Your task to perform on an android device: check android version Image 0: 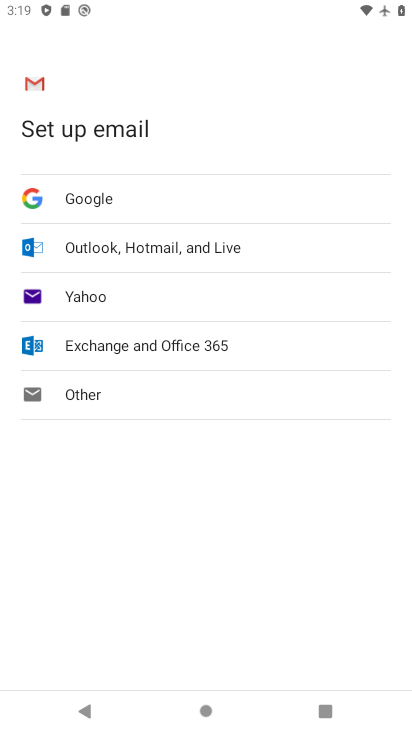
Step 0: press home button
Your task to perform on an android device: check android version Image 1: 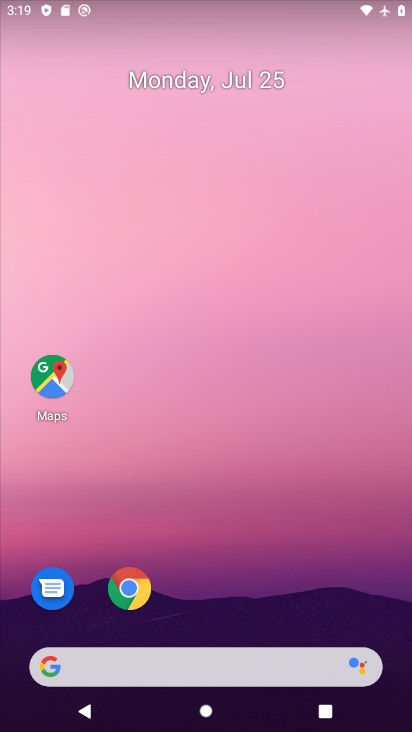
Step 1: drag from (231, 727) to (233, 77)
Your task to perform on an android device: check android version Image 2: 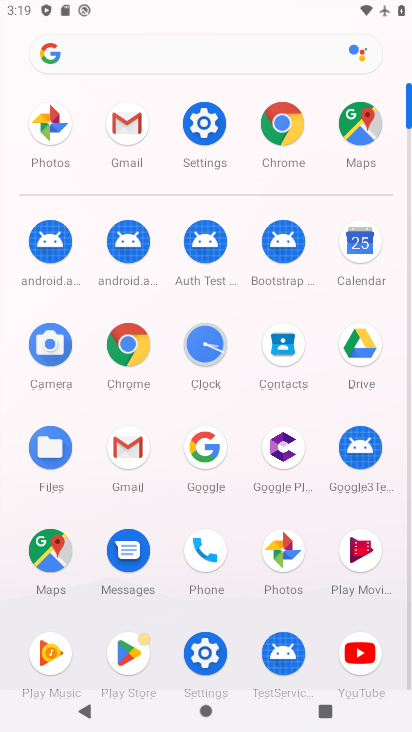
Step 2: click (203, 126)
Your task to perform on an android device: check android version Image 3: 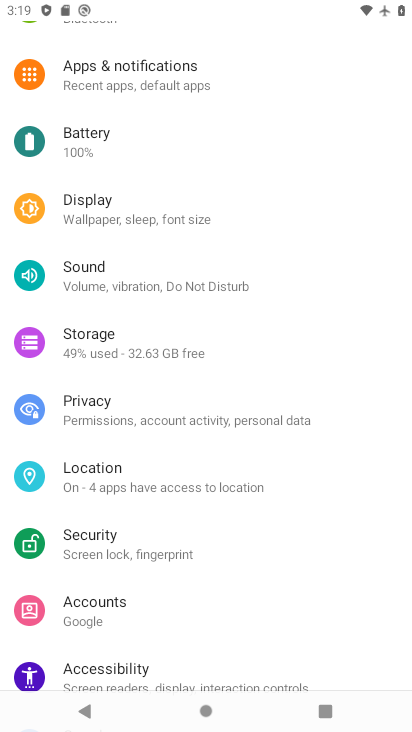
Step 3: drag from (154, 639) to (150, 174)
Your task to perform on an android device: check android version Image 4: 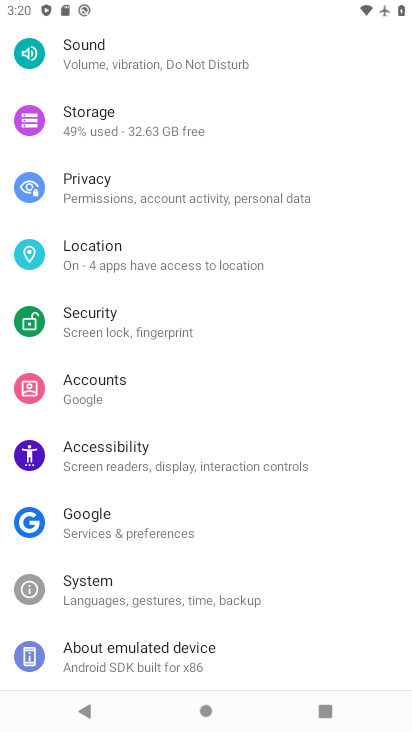
Step 4: click (160, 655)
Your task to perform on an android device: check android version Image 5: 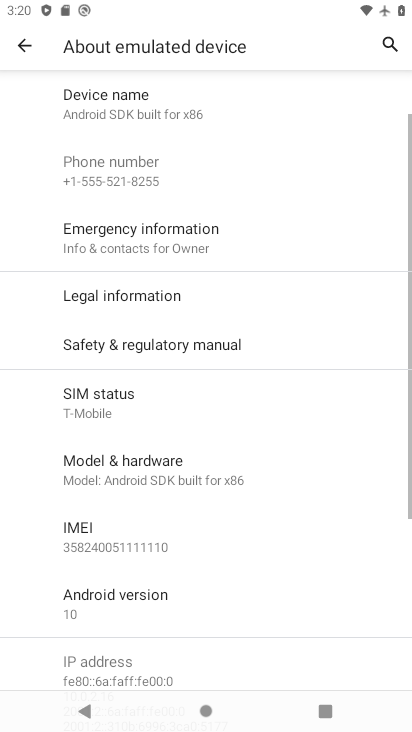
Step 5: click (110, 596)
Your task to perform on an android device: check android version Image 6: 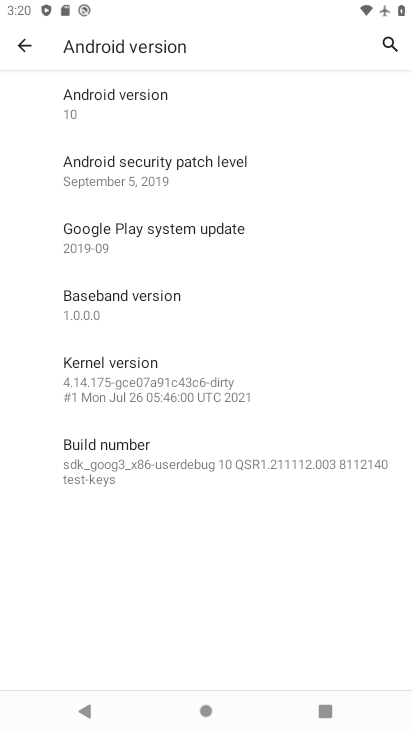
Step 6: task complete